Your task to perform on an android device: When is my next appointment? Image 0: 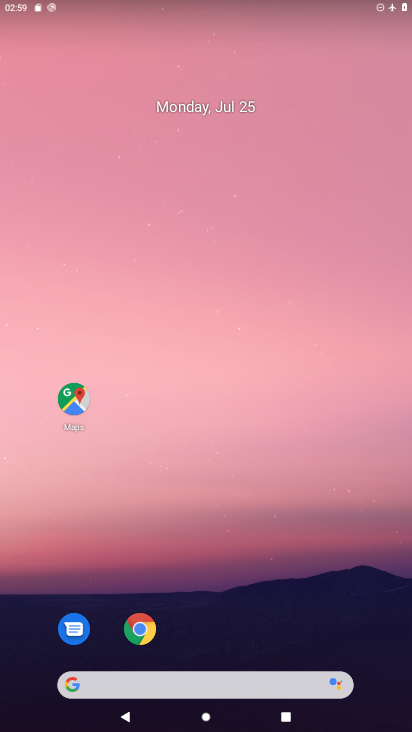
Step 0: drag from (331, 445) to (392, 510)
Your task to perform on an android device: When is my next appointment? Image 1: 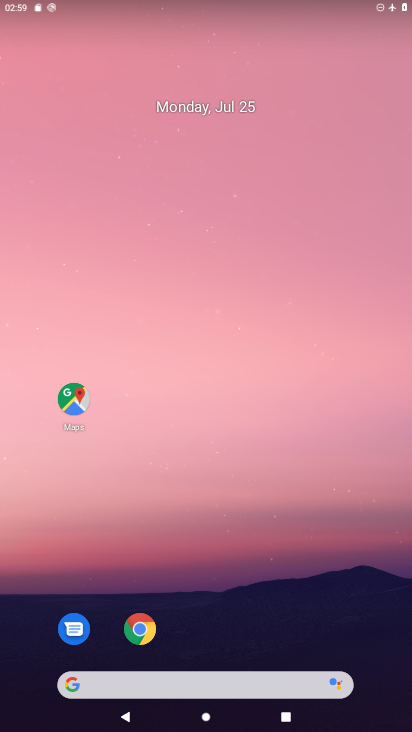
Step 1: drag from (321, 412) to (402, 10)
Your task to perform on an android device: When is my next appointment? Image 2: 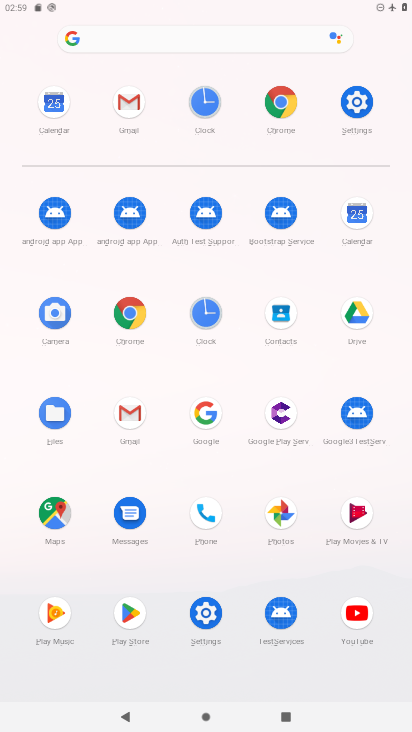
Step 2: click (362, 205)
Your task to perform on an android device: When is my next appointment? Image 3: 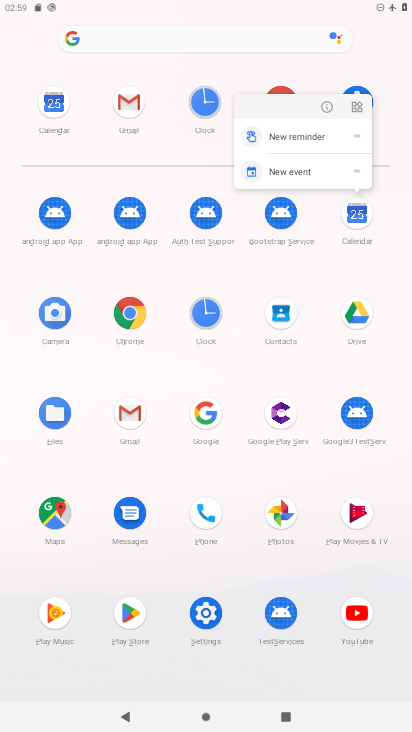
Step 3: click (353, 212)
Your task to perform on an android device: When is my next appointment? Image 4: 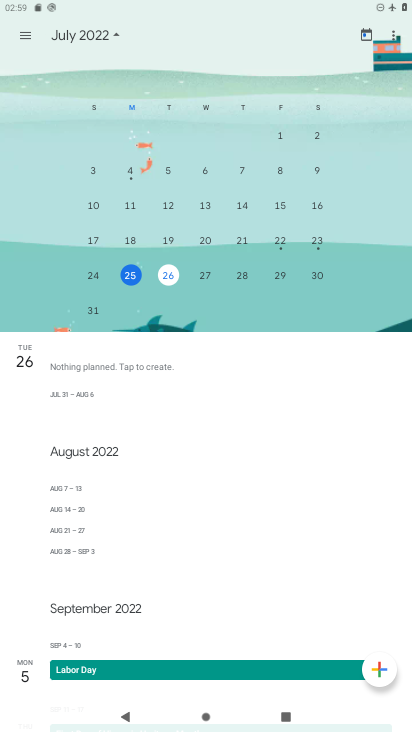
Step 4: click (128, 280)
Your task to perform on an android device: When is my next appointment? Image 5: 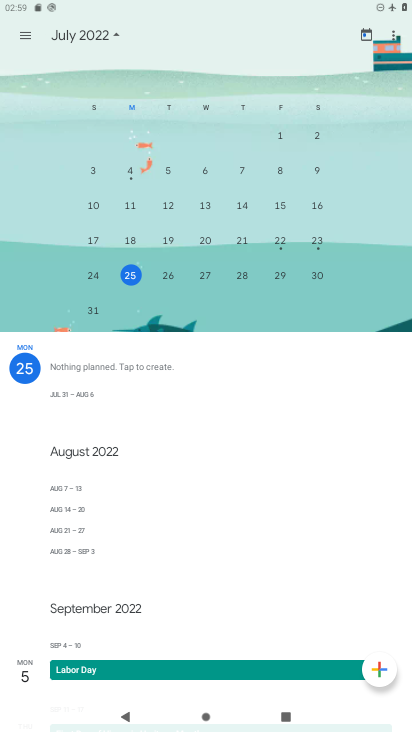
Step 5: task complete